Your task to perform on an android device: Go to battery settings Image 0: 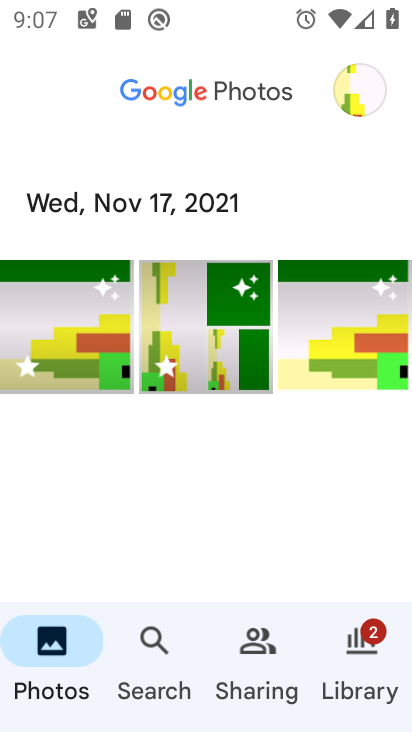
Step 0: press home button
Your task to perform on an android device: Go to battery settings Image 1: 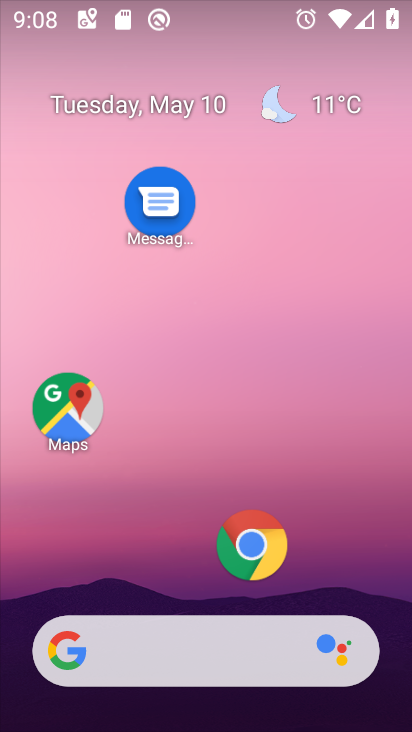
Step 1: drag from (195, 584) to (229, 142)
Your task to perform on an android device: Go to battery settings Image 2: 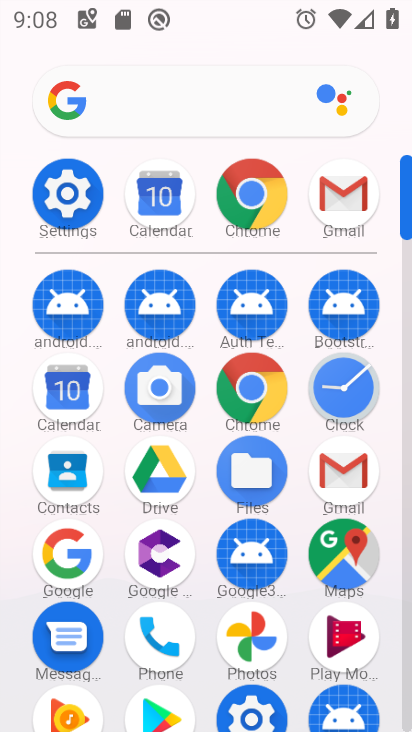
Step 2: click (60, 189)
Your task to perform on an android device: Go to battery settings Image 3: 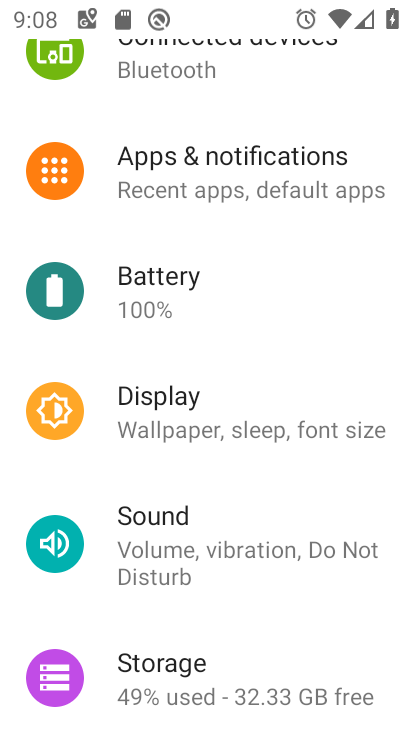
Step 3: click (182, 292)
Your task to perform on an android device: Go to battery settings Image 4: 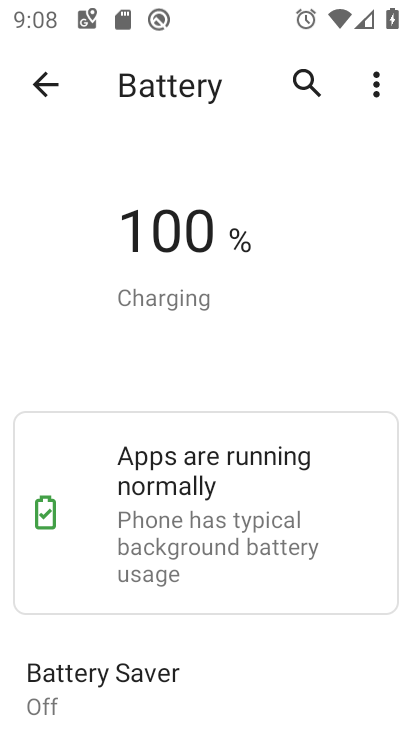
Step 4: task complete